Your task to perform on an android device: Open calendar and show me the fourth week of next month Image 0: 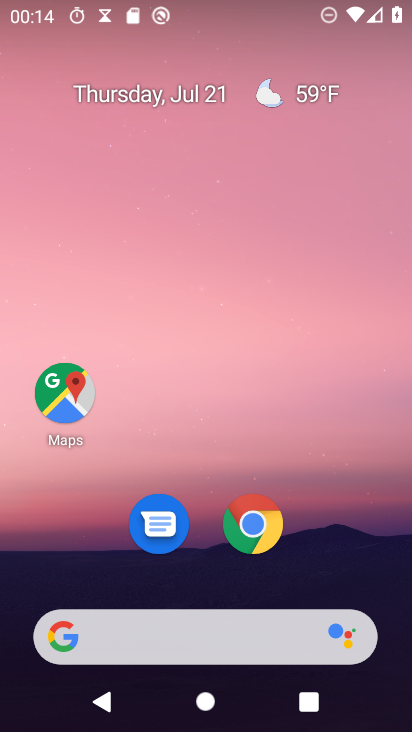
Step 0: drag from (207, 634) to (315, 98)
Your task to perform on an android device: Open calendar and show me the fourth week of next month Image 1: 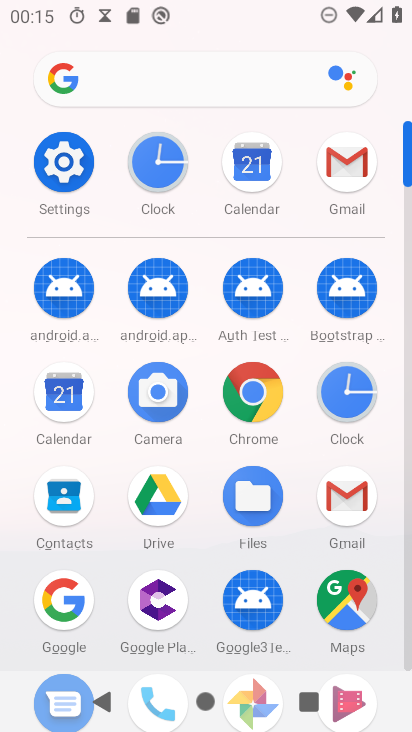
Step 1: click (63, 399)
Your task to perform on an android device: Open calendar and show me the fourth week of next month Image 2: 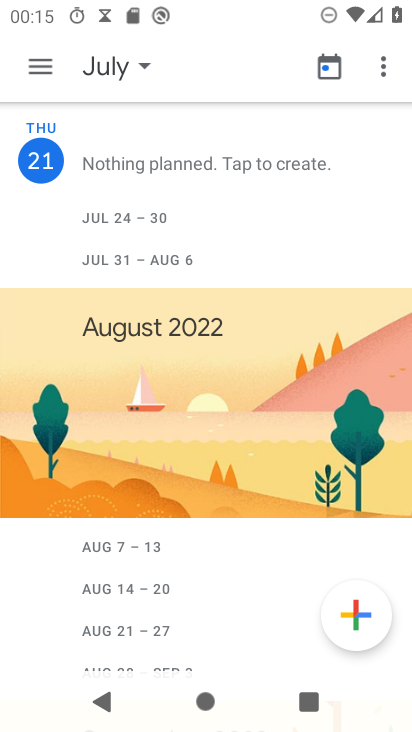
Step 2: click (104, 67)
Your task to perform on an android device: Open calendar and show me the fourth week of next month Image 3: 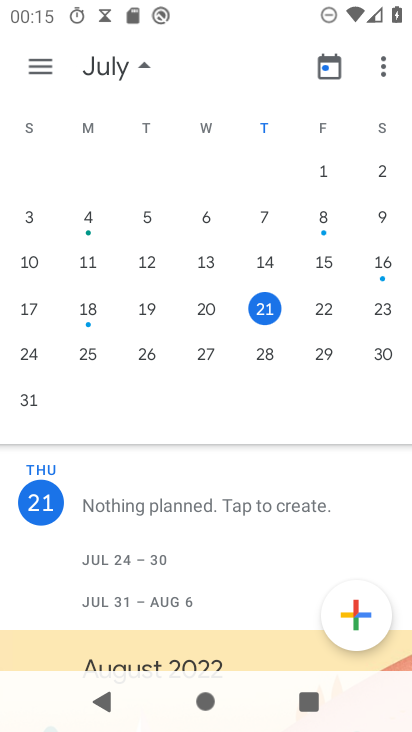
Step 3: drag from (375, 237) to (106, 252)
Your task to perform on an android device: Open calendar and show me the fourth week of next month Image 4: 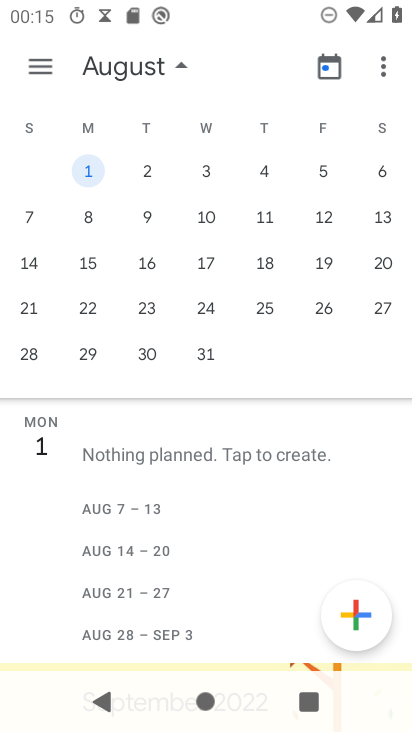
Step 4: click (25, 310)
Your task to perform on an android device: Open calendar and show me the fourth week of next month Image 5: 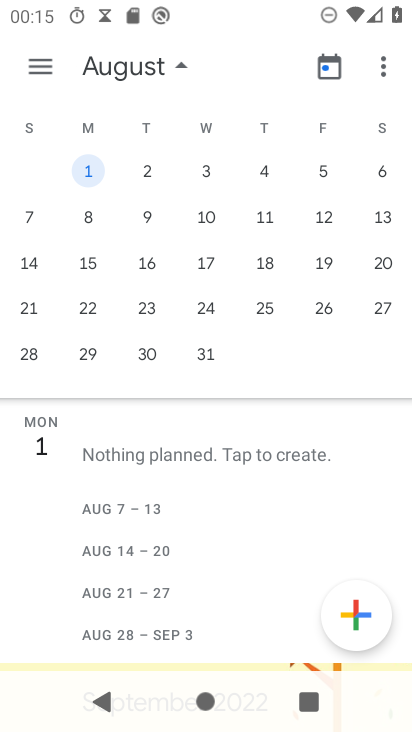
Step 5: click (32, 302)
Your task to perform on an android device: Open calendar and show me the fourth week of next month Image 6: 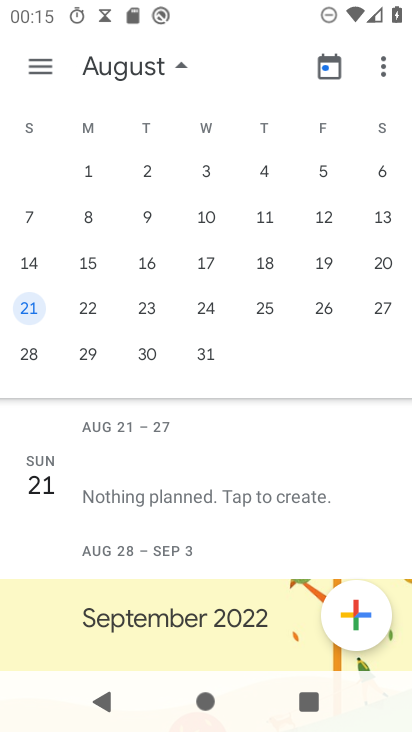
Step 6: click (40, 66)
Your task to perform on an android device: Open calendar and show me the fourth week of next month Image 7: 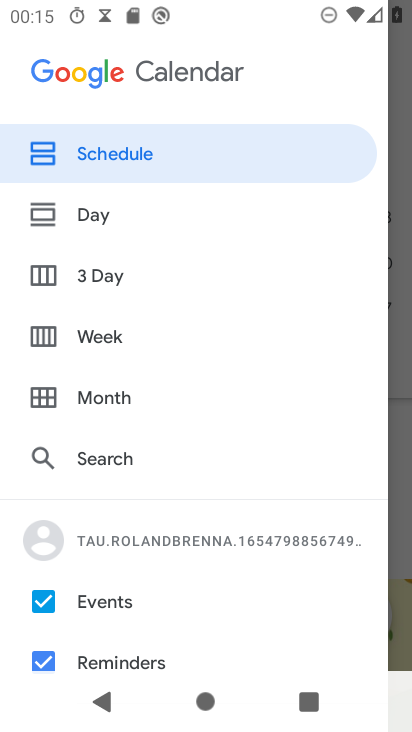
Step 7: click (102, 340)
Your task to perform on an android device: Open calendar and show me the fourth week of next month Image 8: 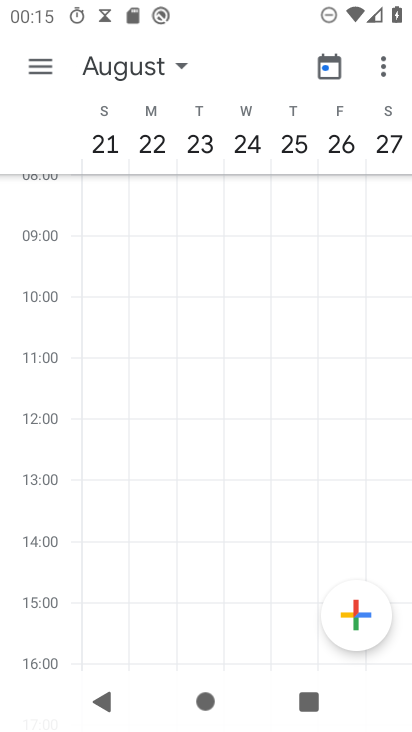
Step 8: task complete